Your task to perform on an android device: Add "usb-c" to the cart on amazon.com Image 0: 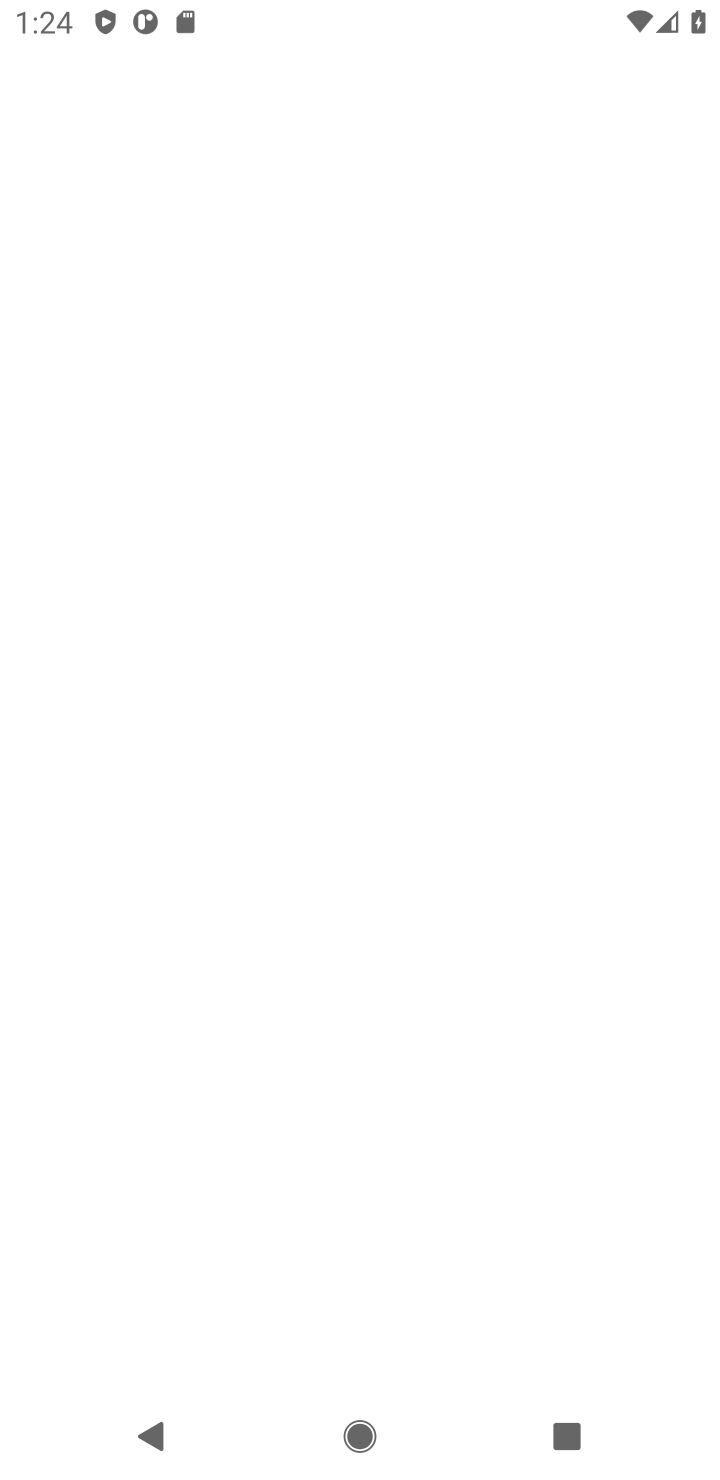
Step 0: press home button
Your task to perform on an android device: Add "usb-c" to the cart on amazon.com Image 1: 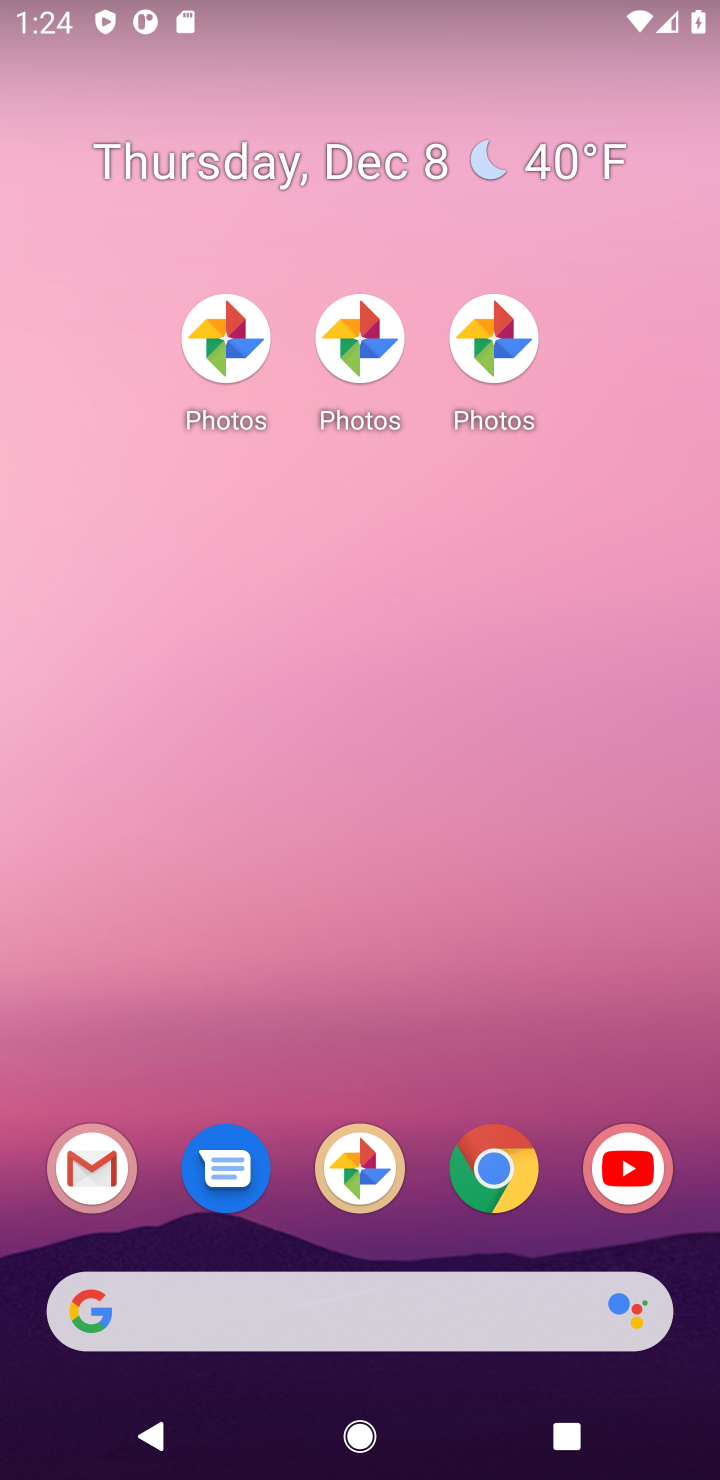
Step 1: drag from (359, 1220) to (352, 306)
Your task to perform on an android device: Add "usb-c" to the cart on amazon.com Image 2: 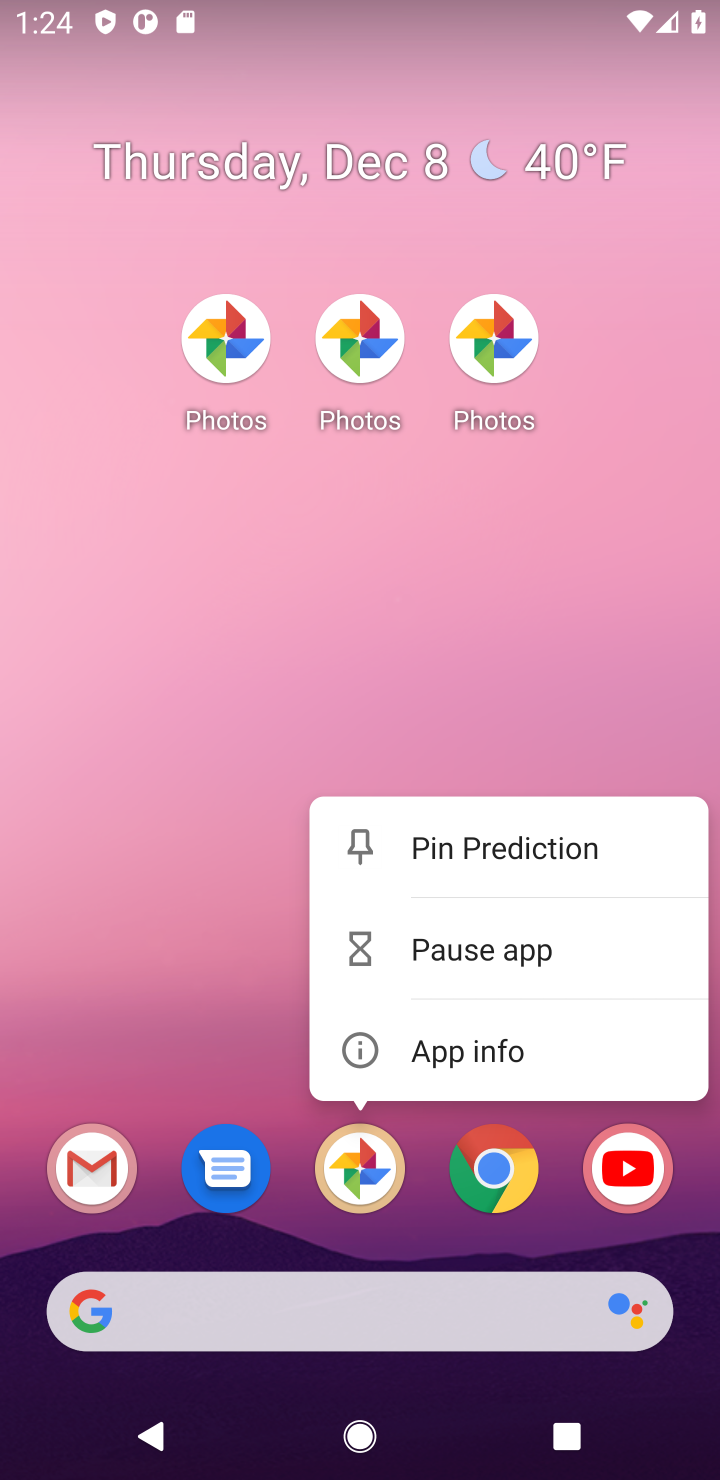
Step 2: click (7, 877)
Your task to perform on an android device: Add "usb-c" to the cart on amazon.com Image 3: 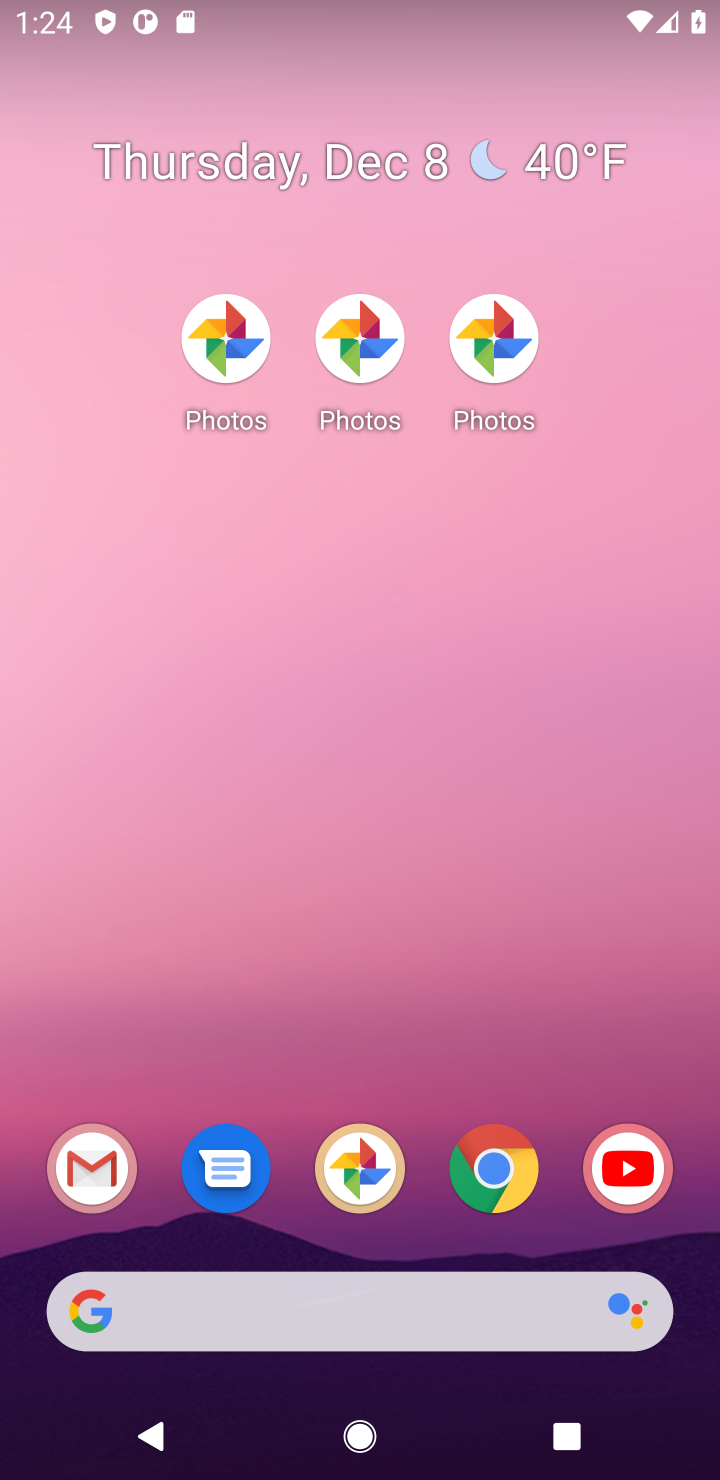
Step 3: drag from (287, 1229) to (247, 270)
Your task to perform on an android device: Add "usb-c" to the cart on amazon.com Image 4: 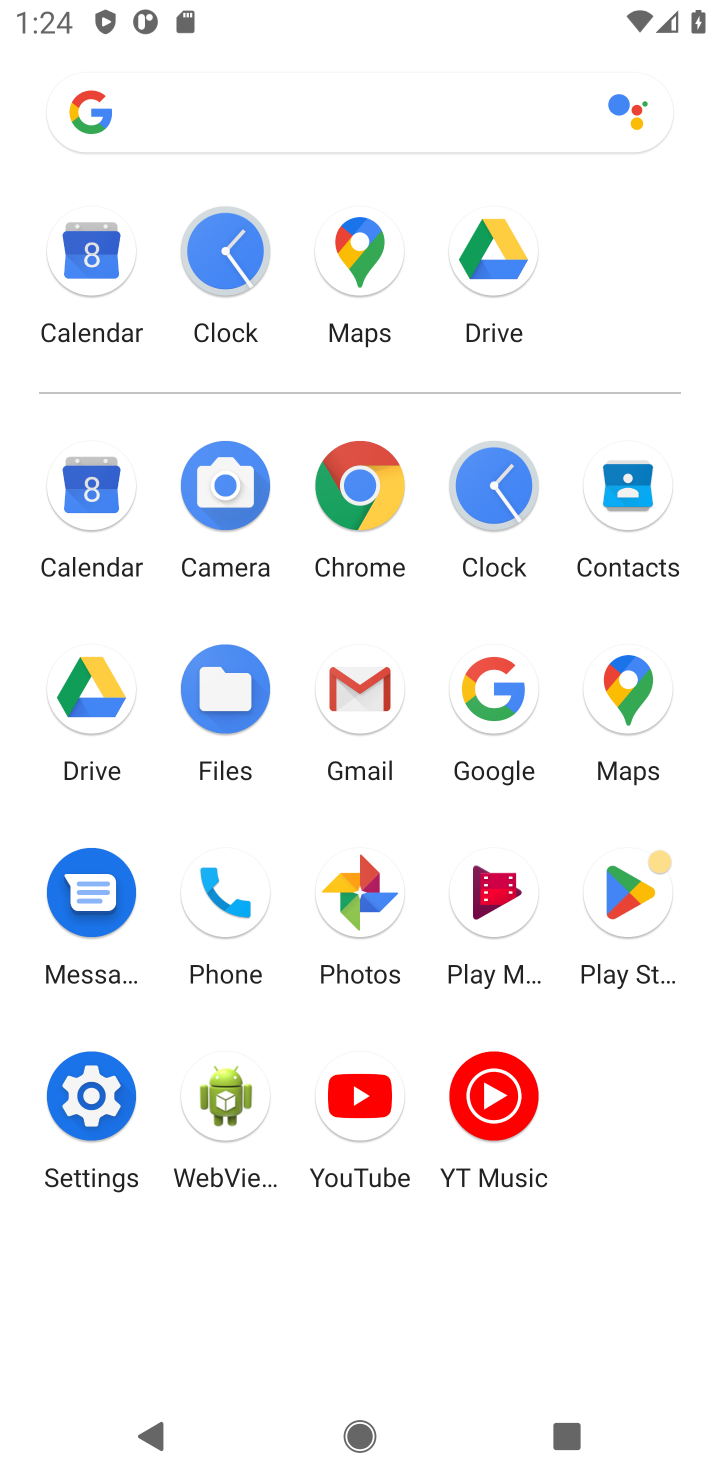
Step 4: click (494, 681)
Your task to perform on an android device: Add "usb-c" to the cart on amazon.com Image 5: 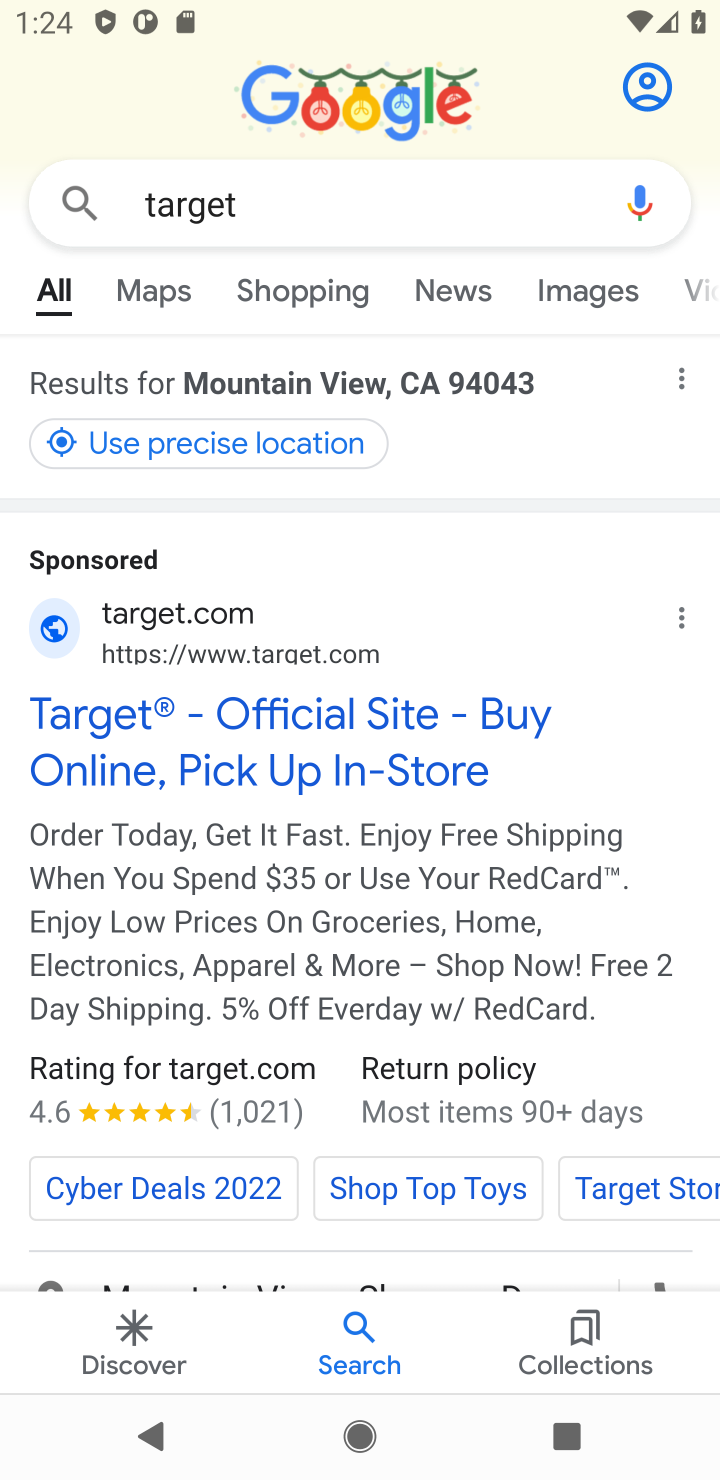
Step 5: click (184, 190)
Your task to perform on an android device: Add "usb-c" to the cart on amazon.com Image 6: 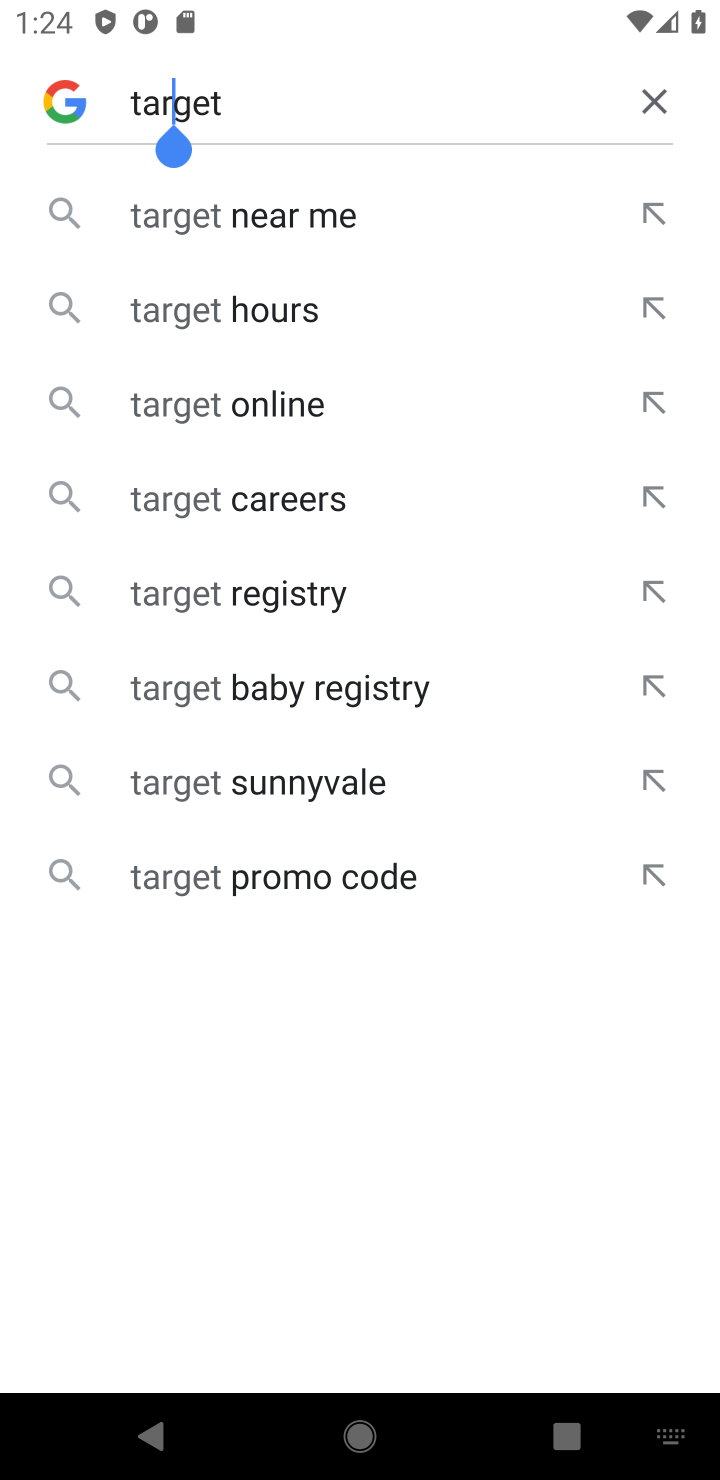
Step 6: click (640, 98)
Your task to perform on an android device: Add "usb-c" to the cart on amazon.com Image 7: 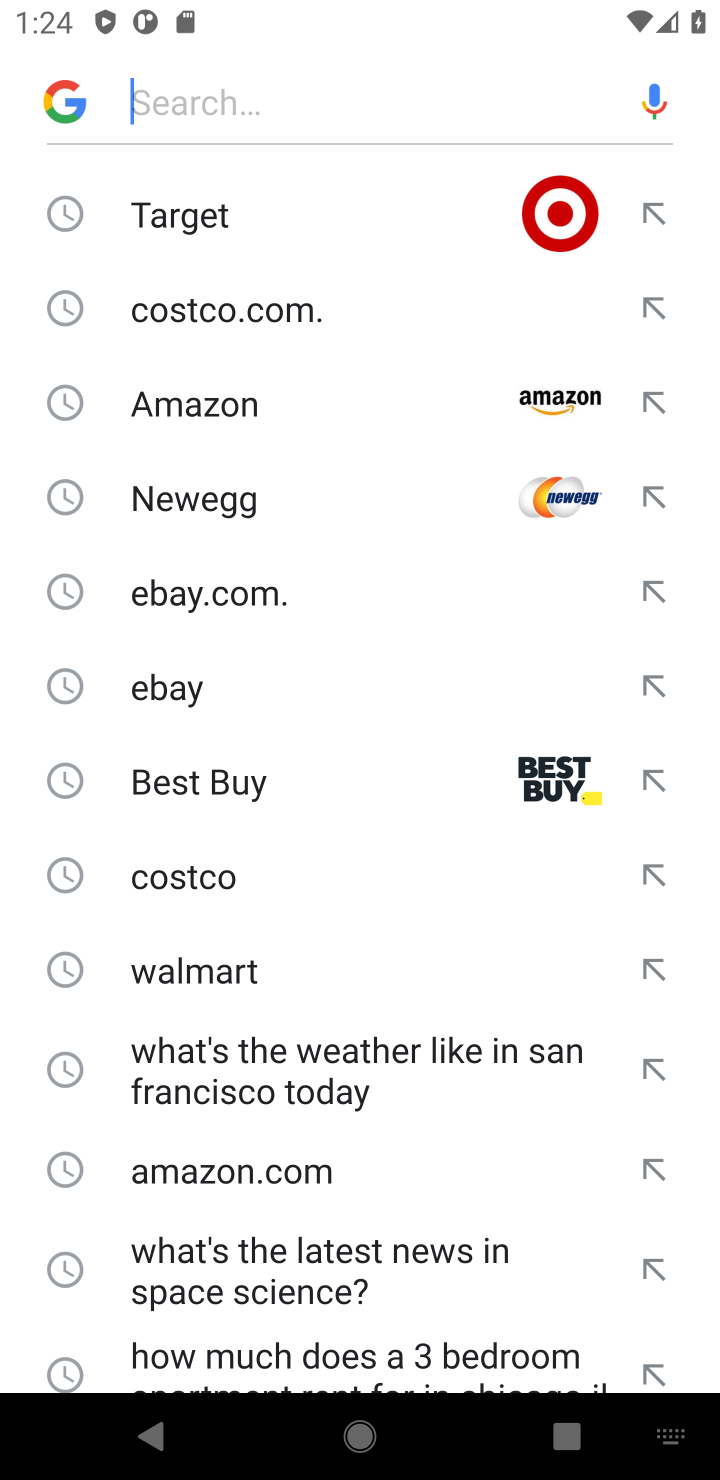
Step 7: click (186, 413)
Your task to perform on an android device: Add "usb-c" to the cart on amazon.com Image 8: 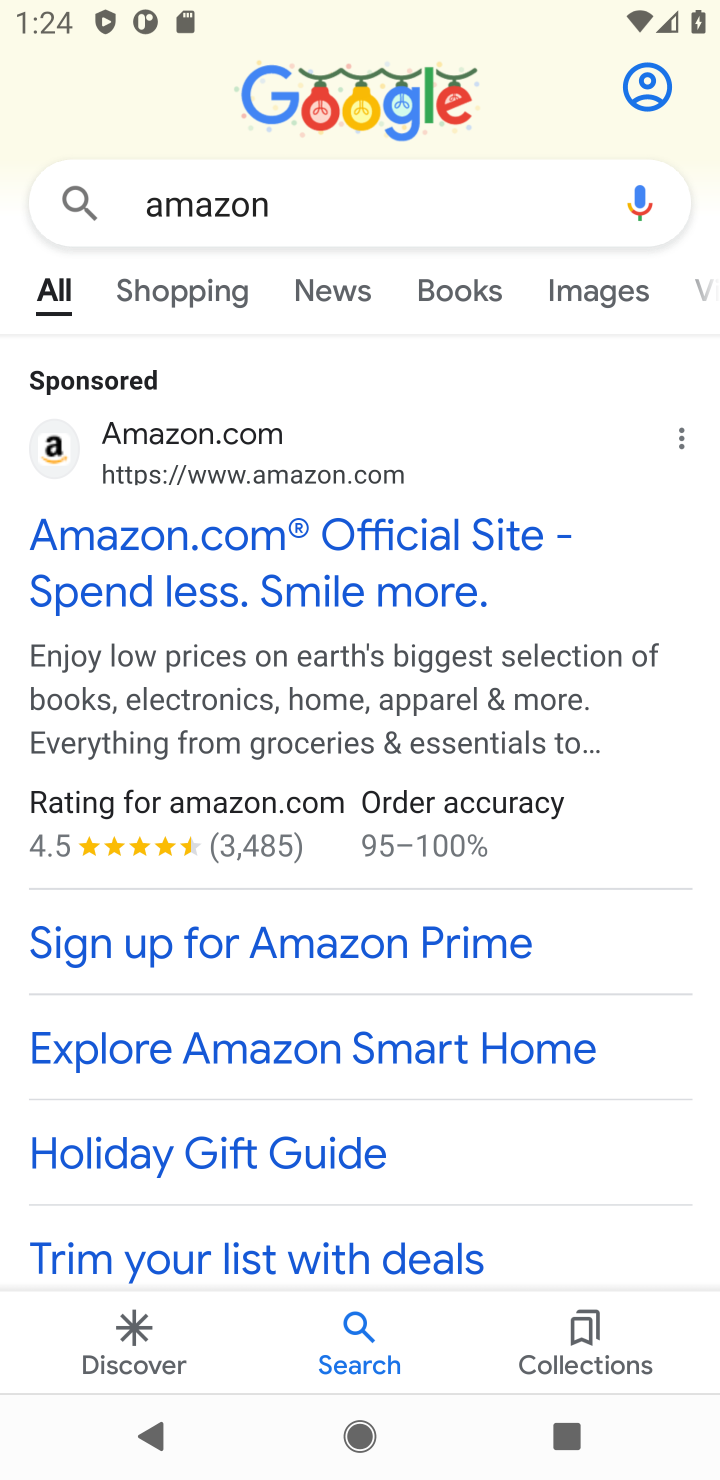
Step 8: click (276, 573)
Your task to perform on an android device: Add "usb-c" to the cart on amazon.com Image 9: 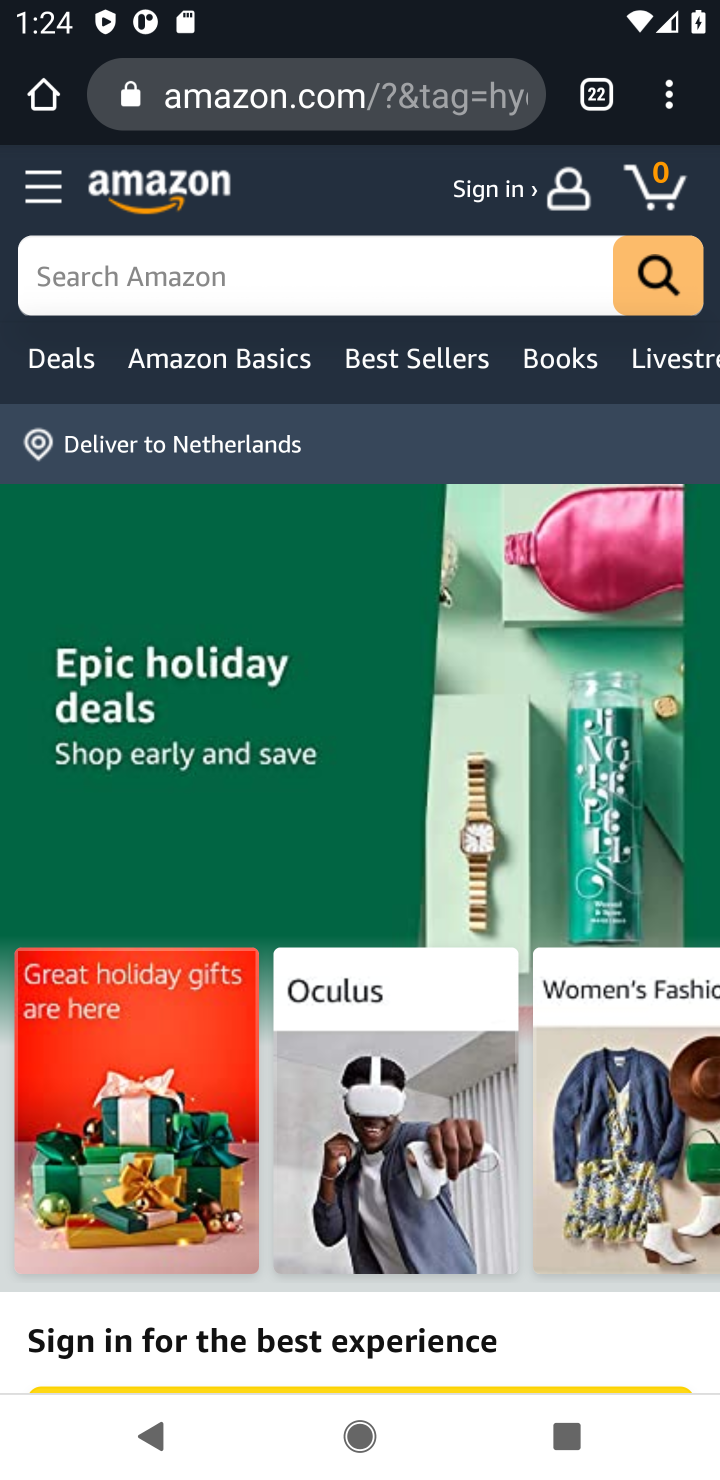
Step 9: click (207, 277)
Your task to perform on an android device: Add "usb-c" to the cart on amazon.com Image 10: 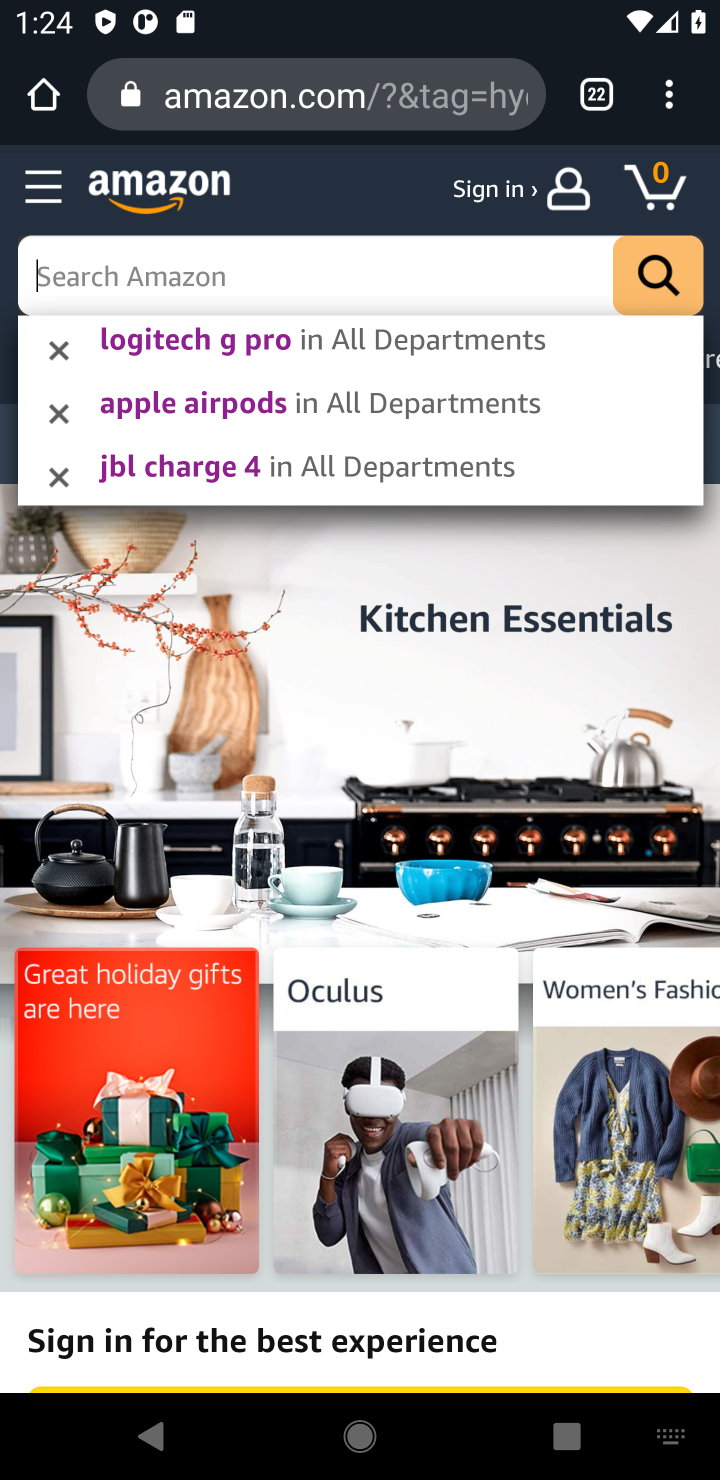
Step 10: click (225, 260)
Your task to perform on an android device: Add "usb-c" to the cart on amazon.com Image 11: 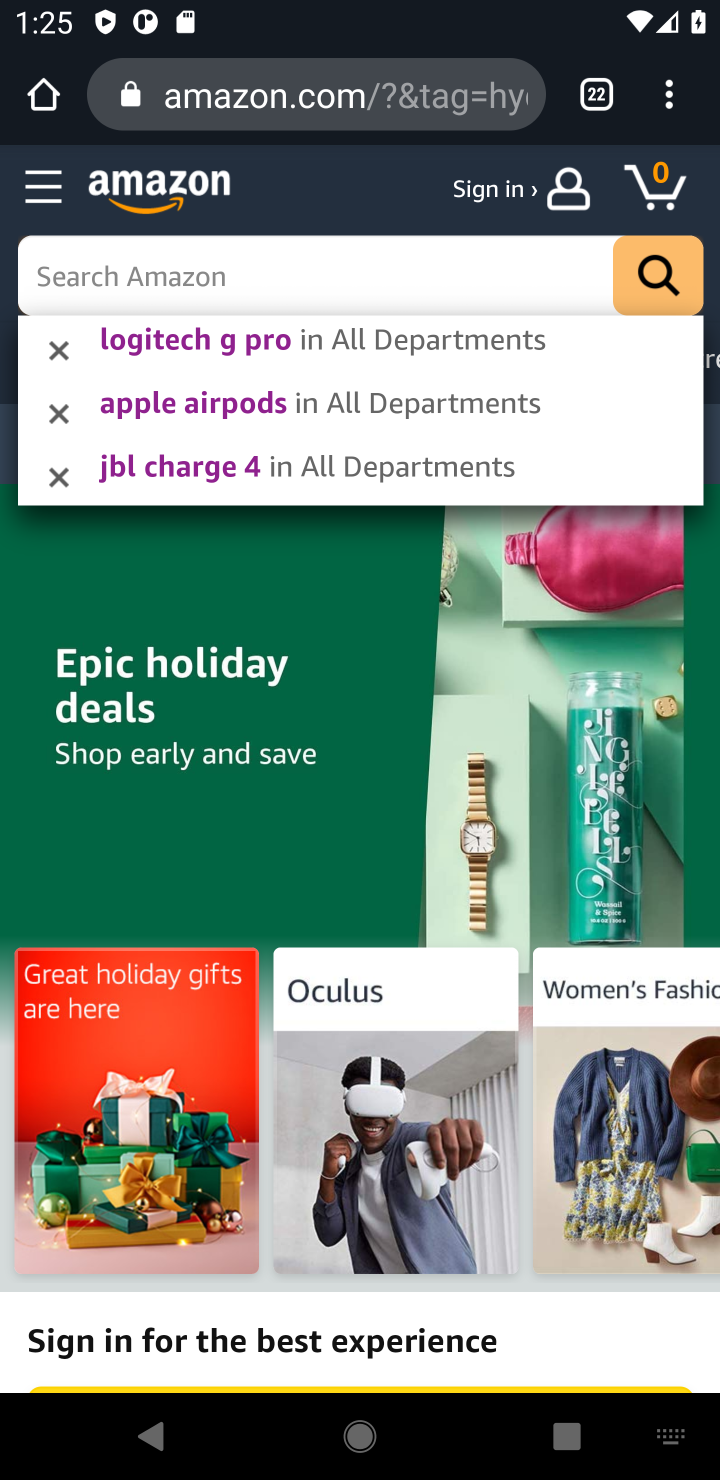
Step 11: type "usb-c"
Your task to perform on an android device: Add "usb-c" to the cart on amazon.com Image 12: 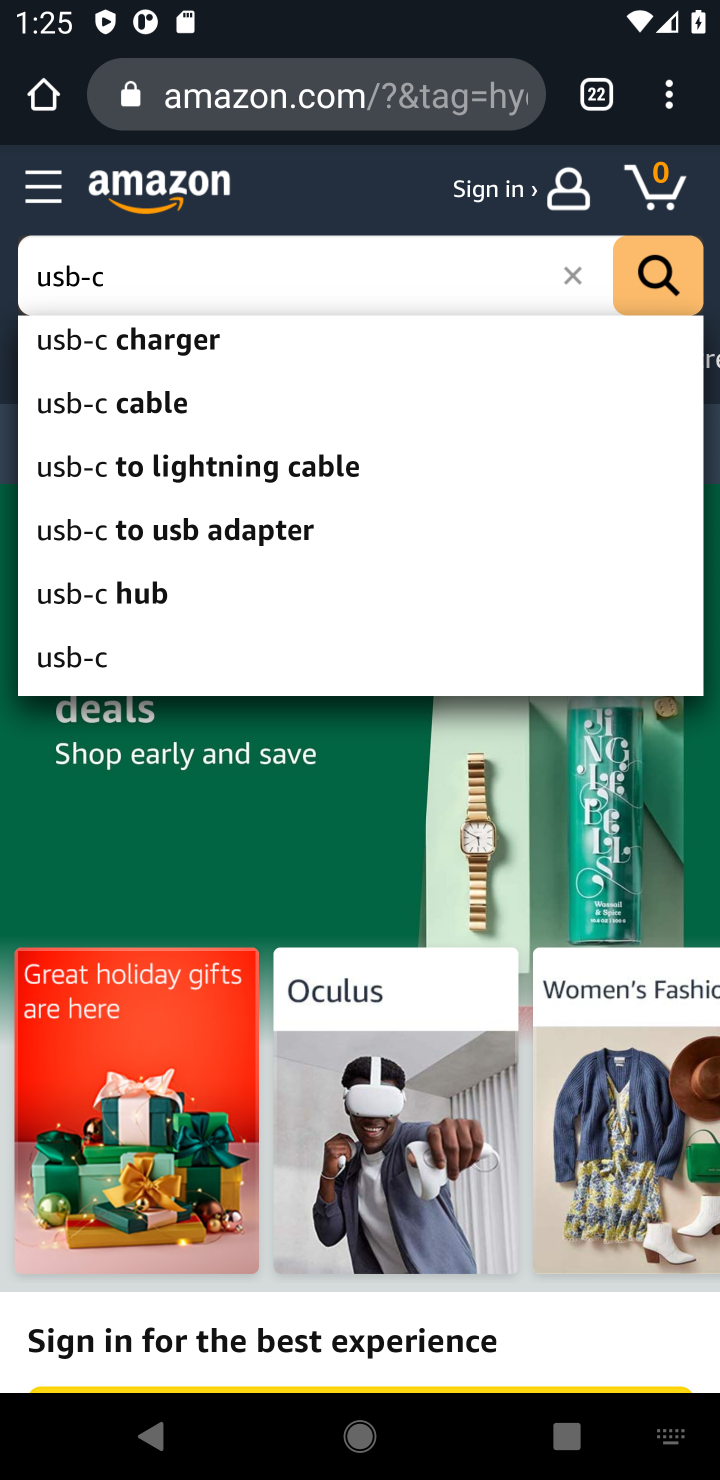
Step 12: click (166, 338)
Your task to perform on an android device: Add "usb-c" to the cart on amazon.com Image 13: 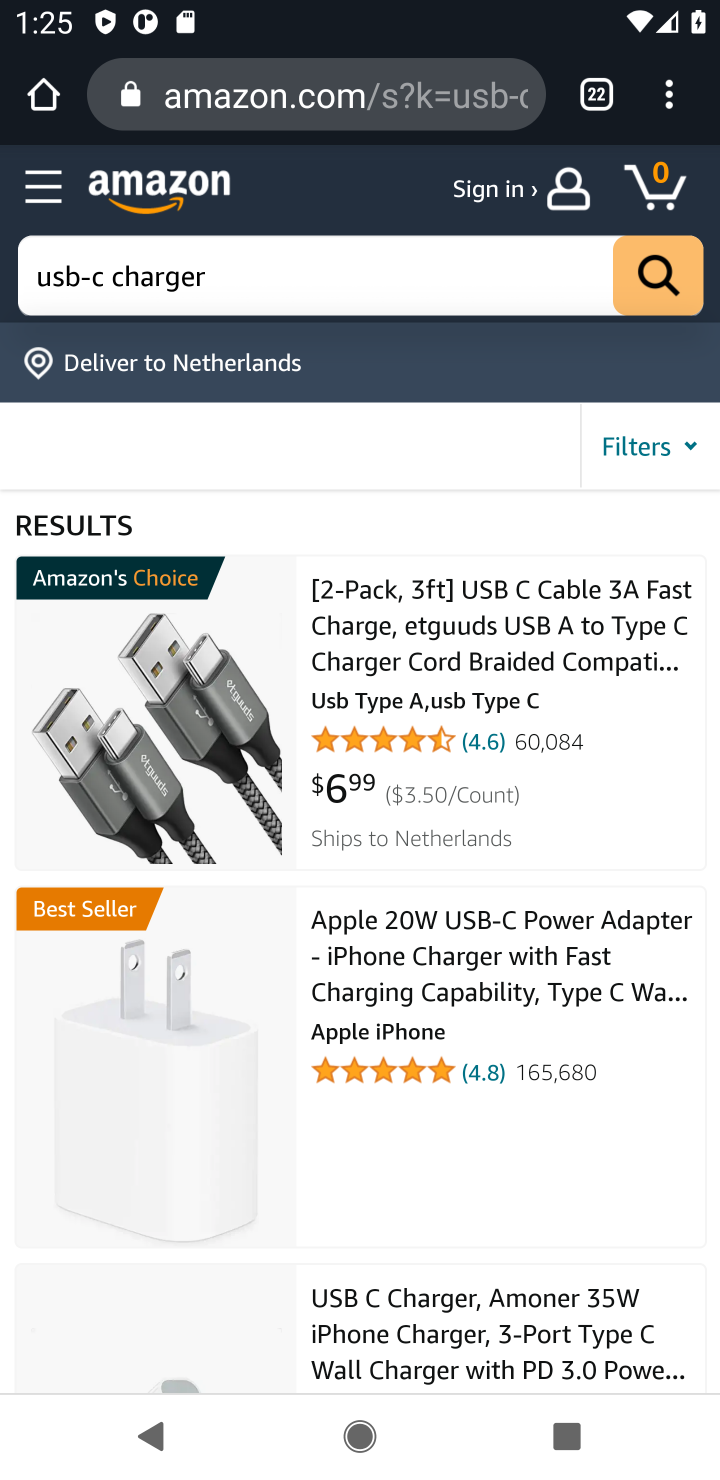
Step 13: click (410, 627)
Your task to perform on an android device: Add "usb-c" to the cart on amazon.com Image 14: 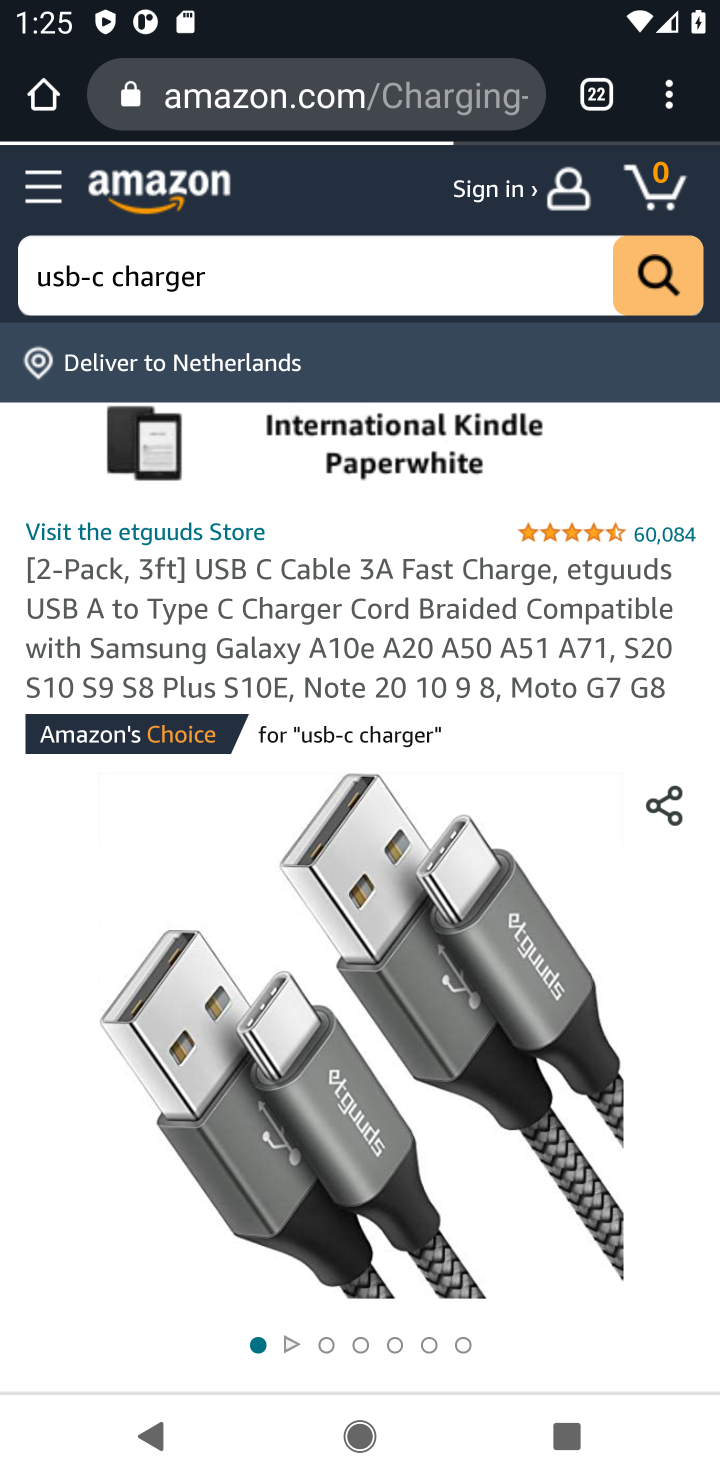
Step 14: drag from (441, 1193) to (423, 681)
Your task to perform on an android device: Add "usb-c" to the cart on amazon.com Image 15: 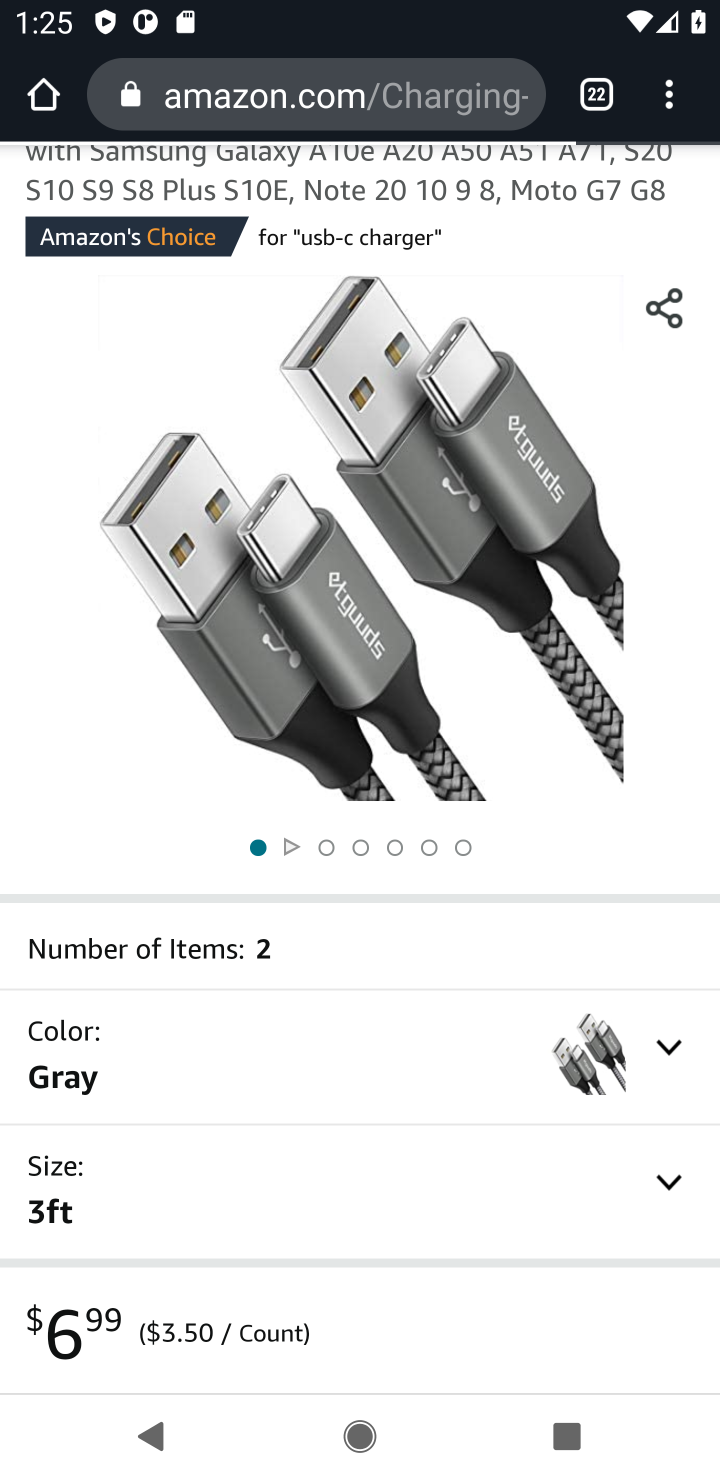
Step 15: drag from (386, 1193) to (386, 780)
Your task to perform on an android device: Add "usb-c" to the cart on amazon.com Image 16: 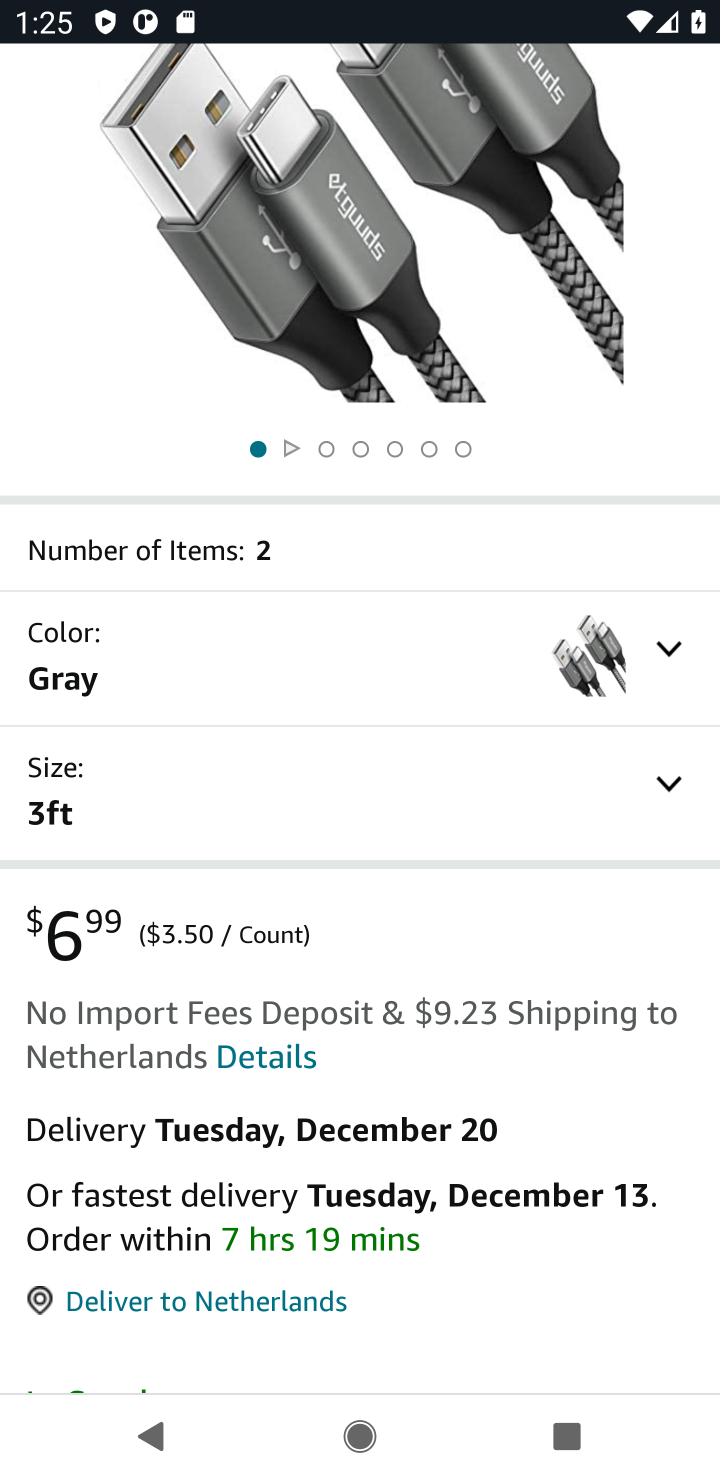
Step 16: drag from (392, 1208) to (392, 622)
Your task to perform on an android device: Add "usb-c" to the cart on amazon.com Image 17: 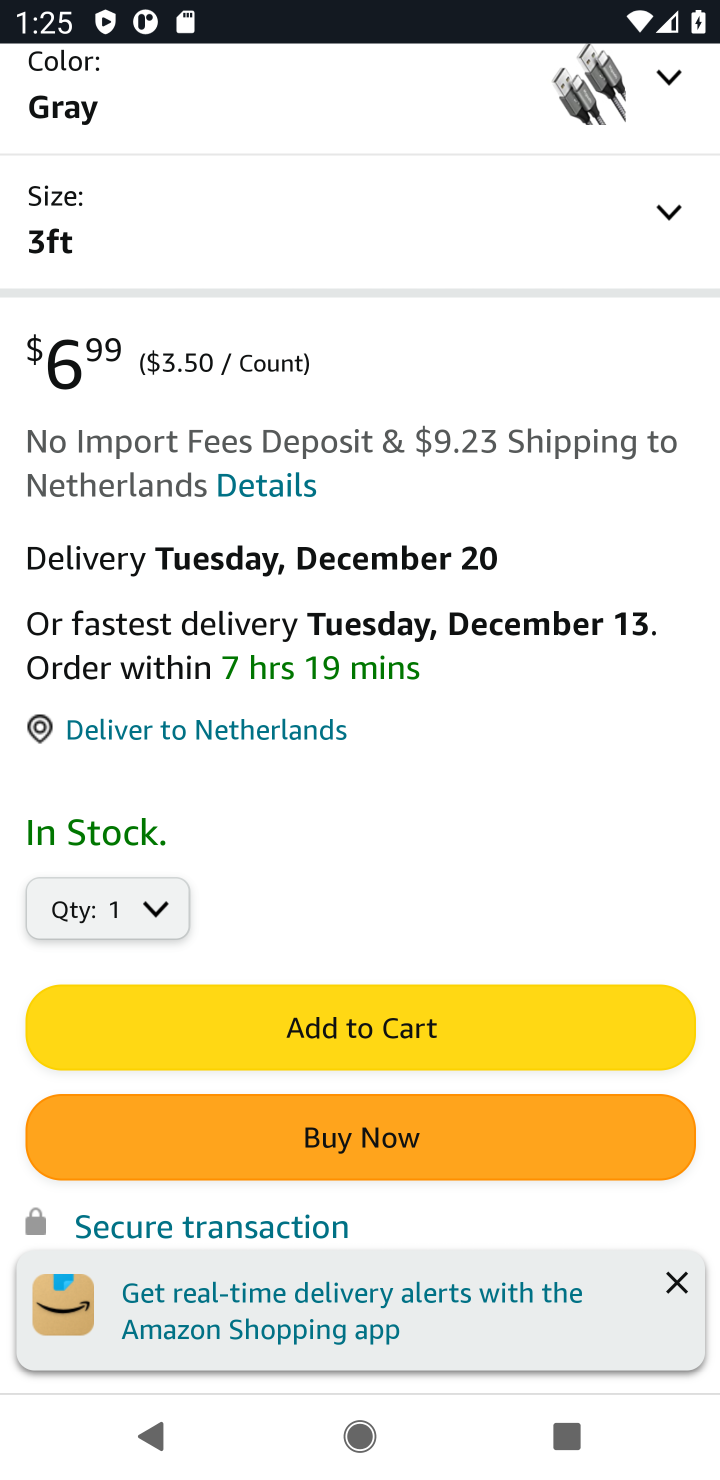
Step 17: click (347, 1030)
Your task to perform on an android device: Add "usb-c" to the cart on amazon.com Image 18: 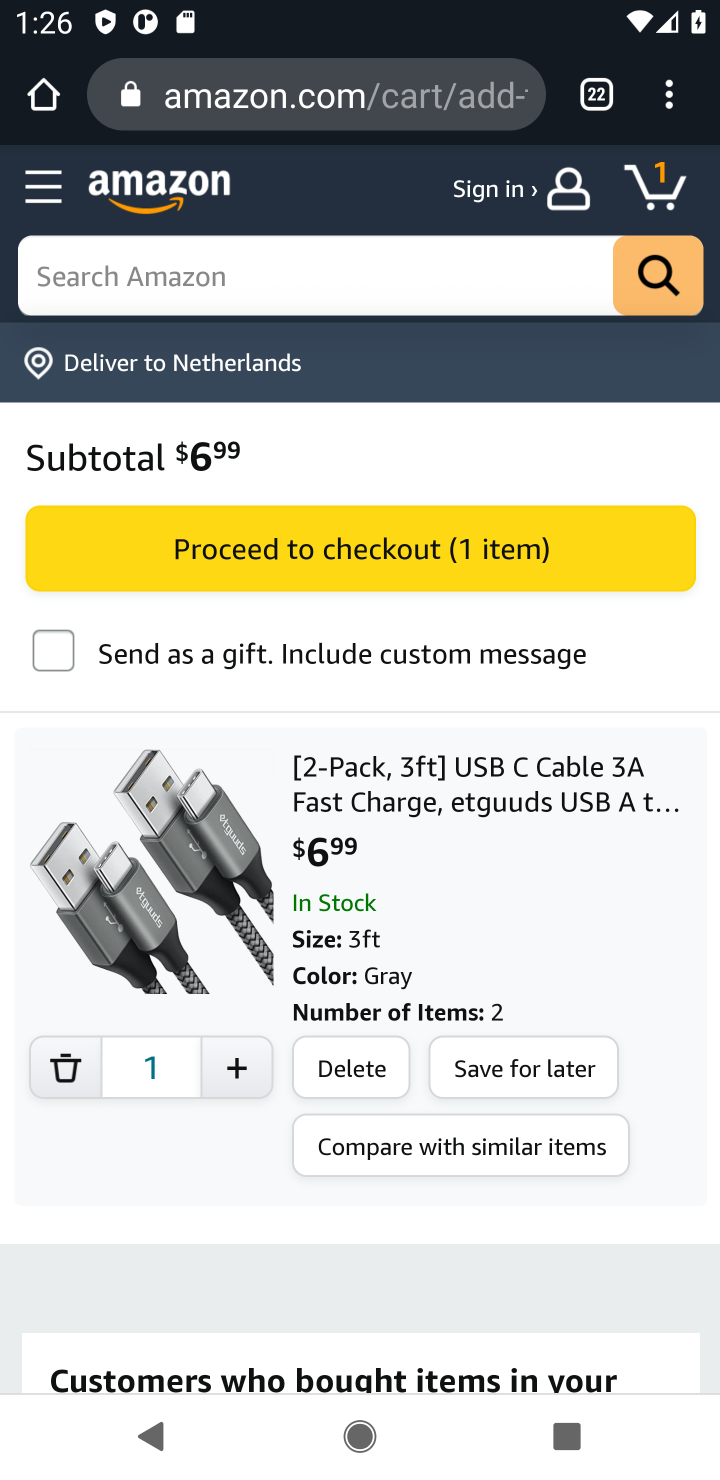
Step 18: task complete